Your task to perform on an android device: Open Wikipedia Image 0: 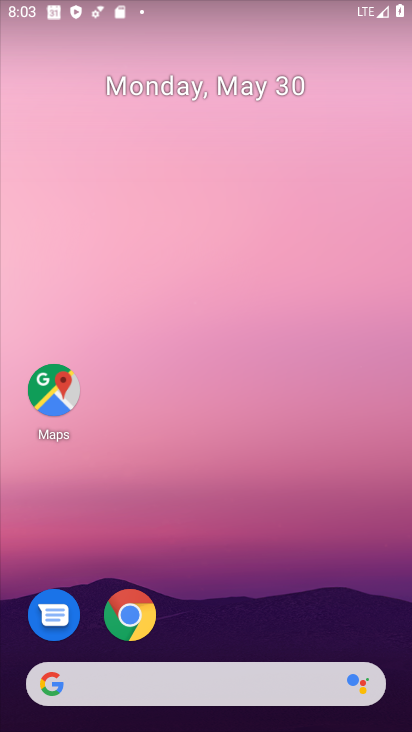
Step 0: click (131, 606)
Your task to perform on an android device: Open Wikipedia Image 1: 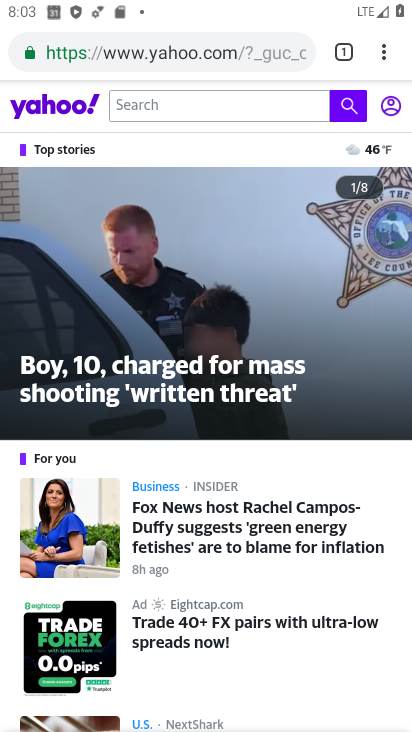
Step 1: click (325, 52)
Your task to perform on an android device: Open Wikipedia Image 2: 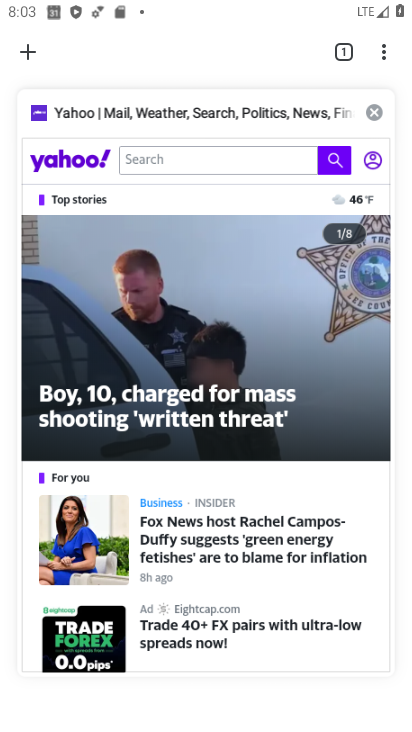
Step 2: click (363, 117)
Your task to perform on an android device: Open Wikipedia Image 3: 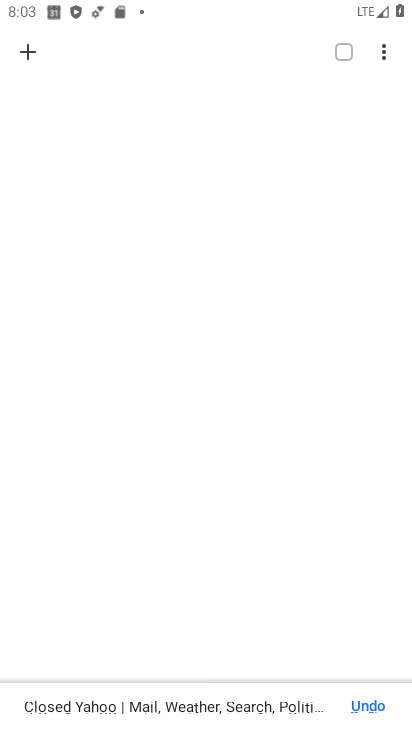
Step 3: click (36, 51)
Your task to perform on an android device: Open Wikipedia Image 4: 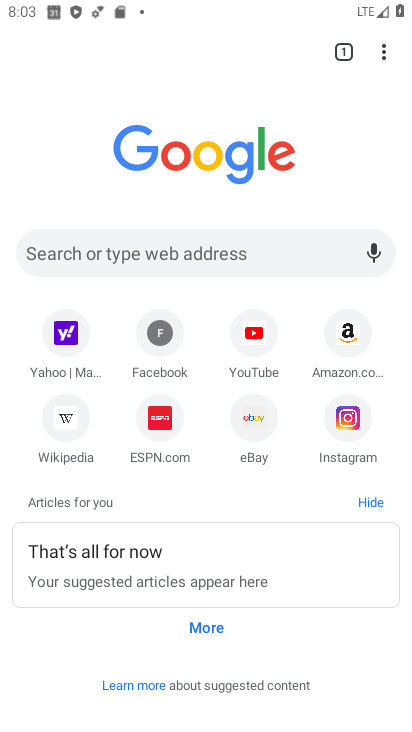
Step 4: click (72, 423)
Your task to perform on an android device: Open Wikipedia Image 5: 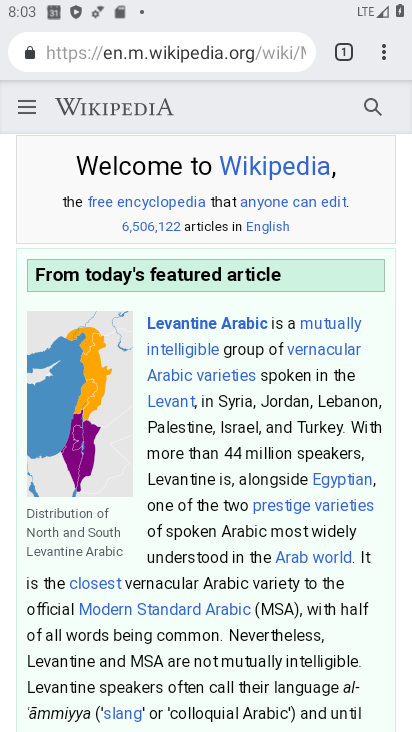
Step 5: task complete